Your task to perform on an android device: open a bookmark in the chrome app Image 0: 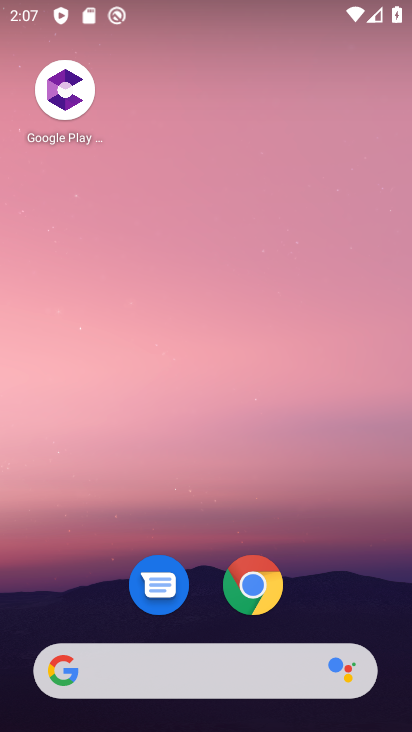
Step 0: press home button
Your task to perform on an android device: open a bookmark in the chrome app Image 1: 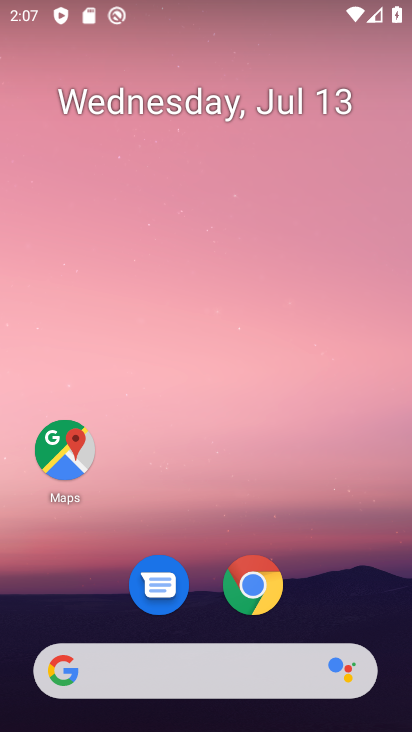
Step 1: click (253, 621)
Your task to perform on an android device: open a bookmark in the chrome app Image 2: 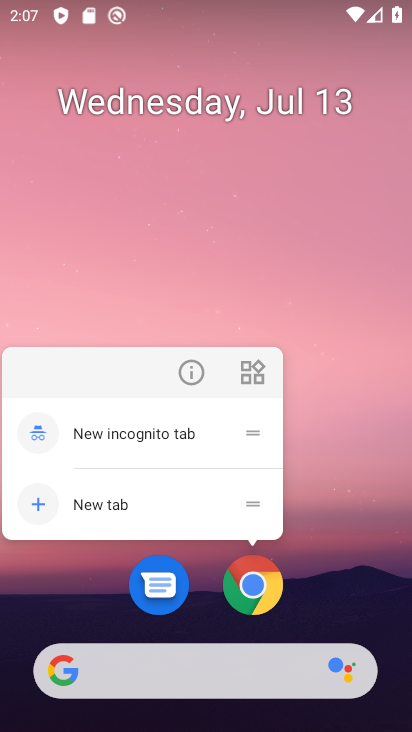
Step 2: click (247, 595)
Your task to perform on an android device: open a bookmark in the chrome app Image 3: 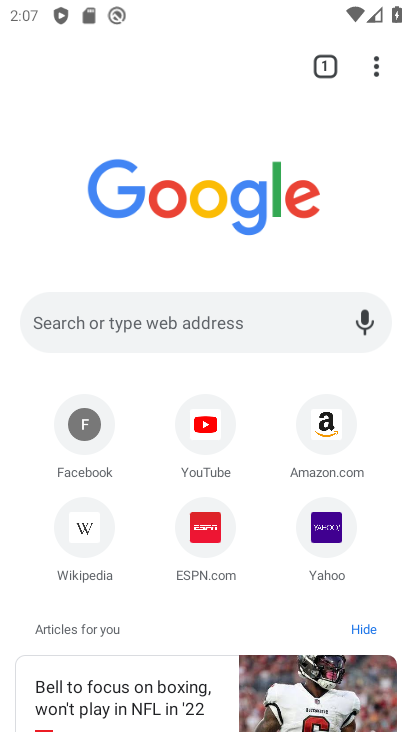
Step 3: task complete